Your task to perform on an android device: open app "Gboard" Image 0: 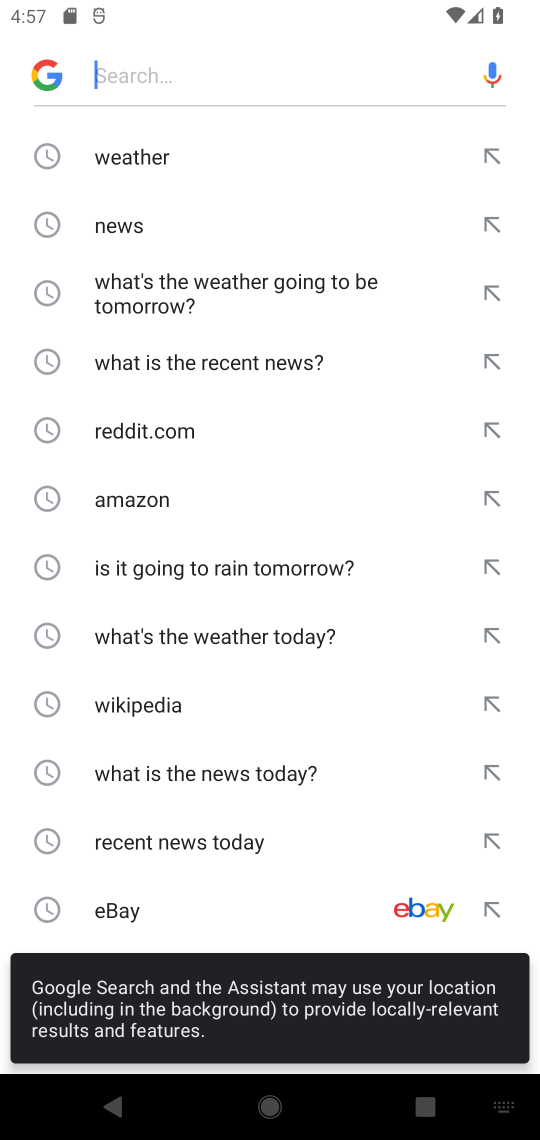
Step 0: press home button
Your task to perform on an android device: open app "Gboard" Image 1: 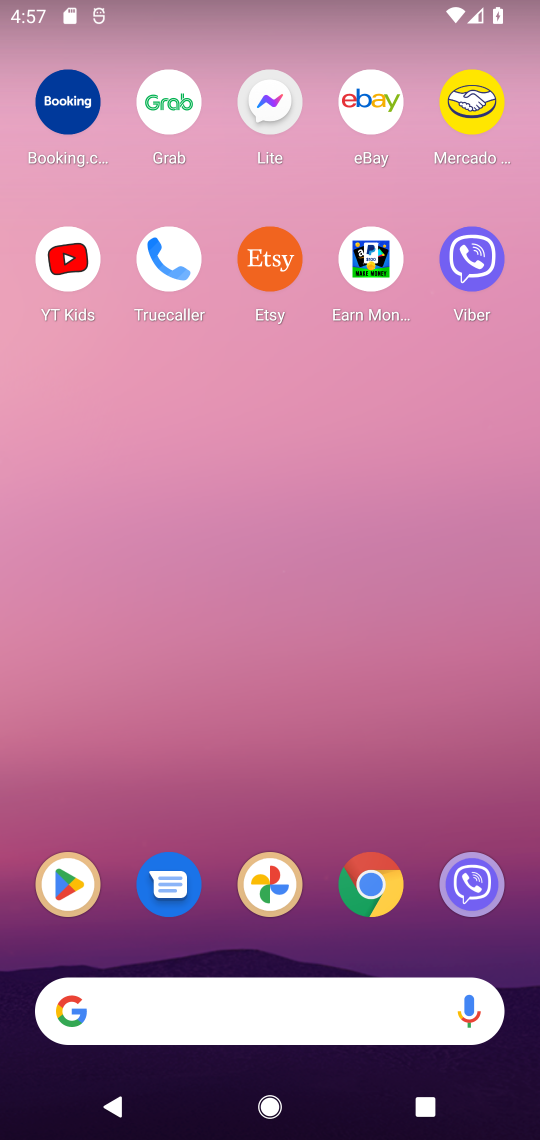
Step 1: drag from (265, 829) to (202, 126)
Your task to perform on an android device: open app "Gboard" Image 2: 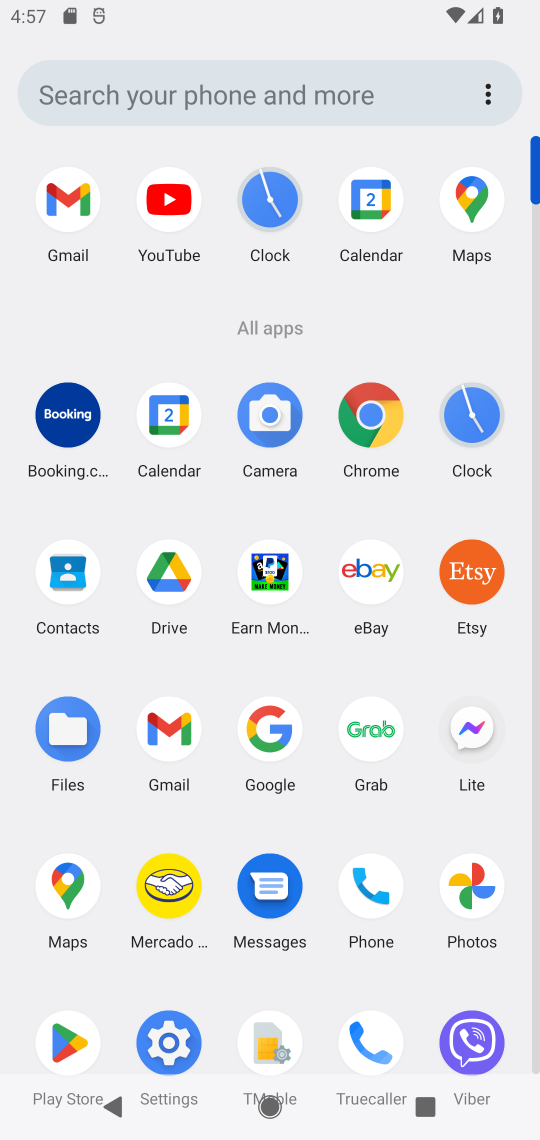
Step 2: drag from (360, 896) to (339, 195)
Your task to perform on an android device: open app "Gboard" Image 3: 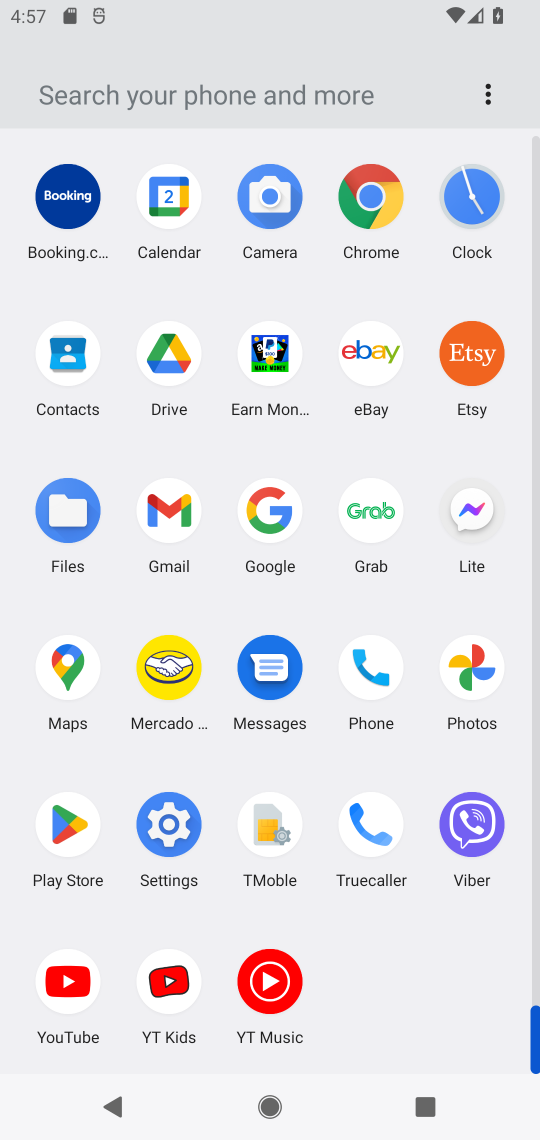
Step 3: click (65, 819)
Your task to perform on an android device: open app "Gboard" Image 4: 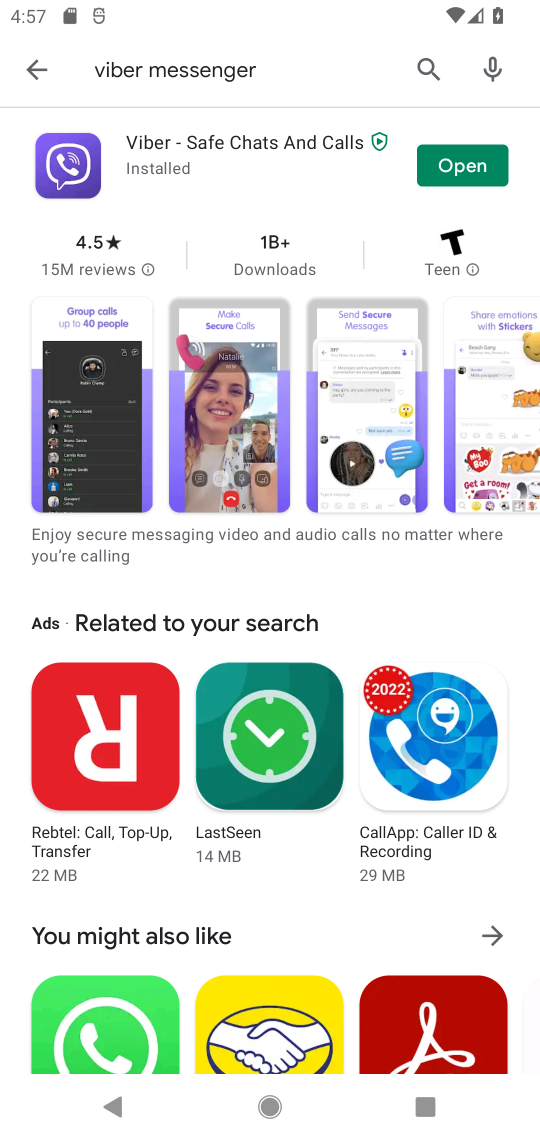
Step 4: click (32, 65)
Your task to perform on an android device: open app "Gboard" Image 5: 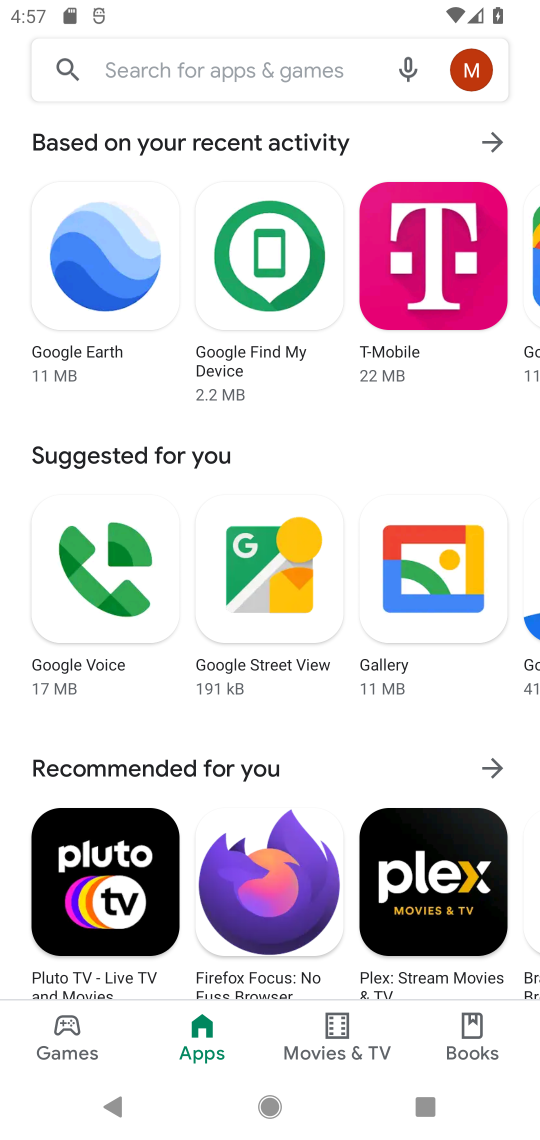
Step 5: click (173, 63)
Your task to perform on an android device: open app "Gboard" Image 6: 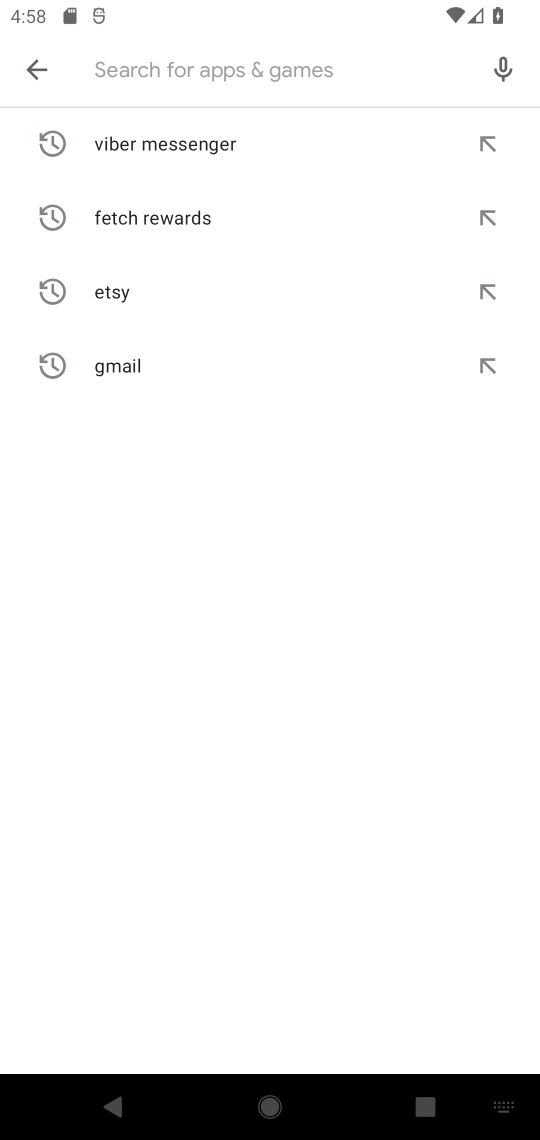
Step 6: type "Gboard"
Your task to perform on an android device: open app "Gboard" Image 7: 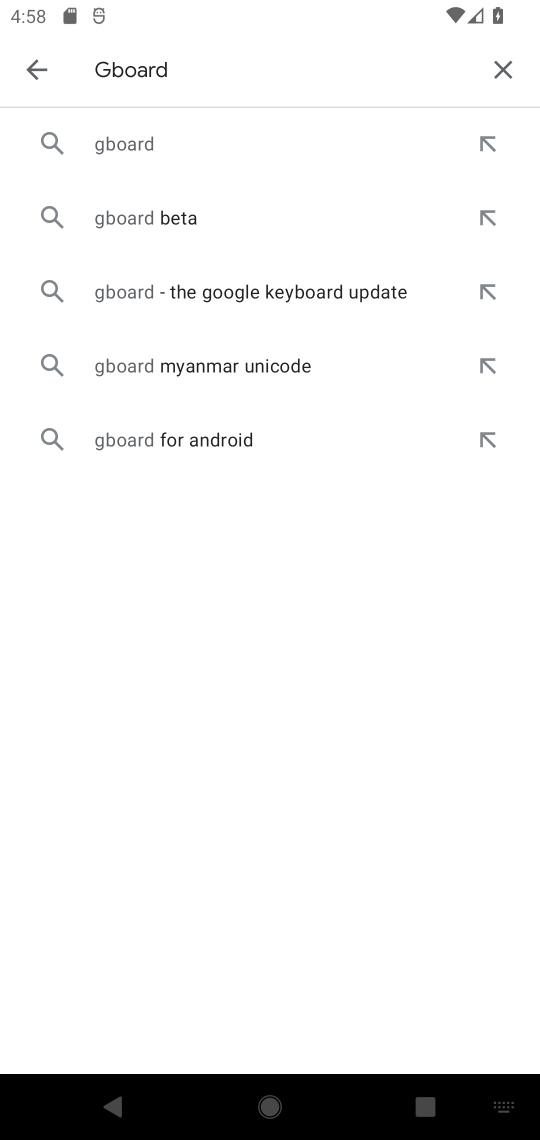
Step 7: click (129, 135)
Your task to perform on an android device: open app "Gboard" Image 8: 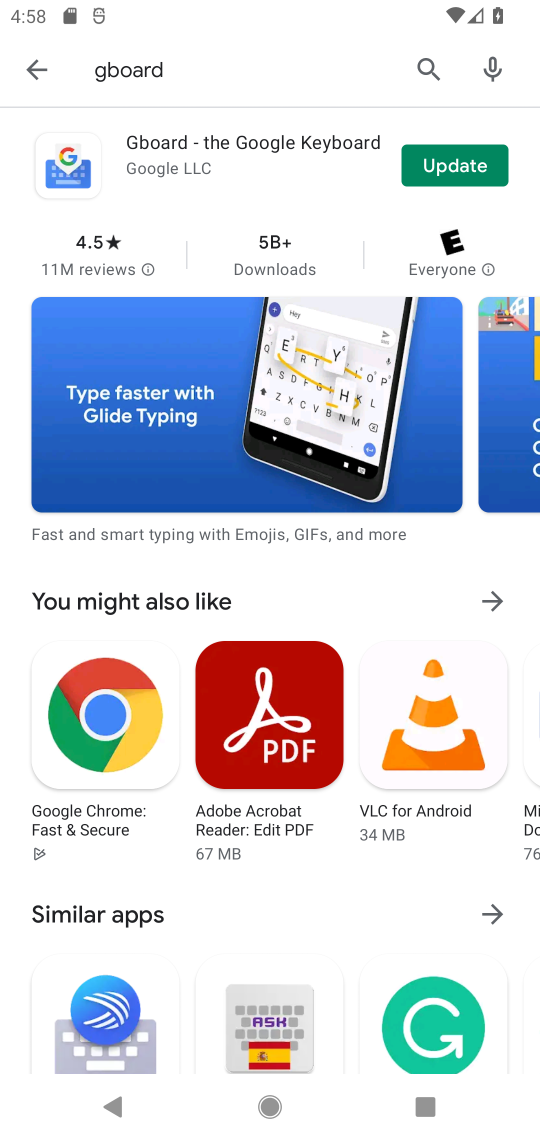
Step 8: click (210, 152)
Your task to perform on an android device: open app "Gboard" Image 9: 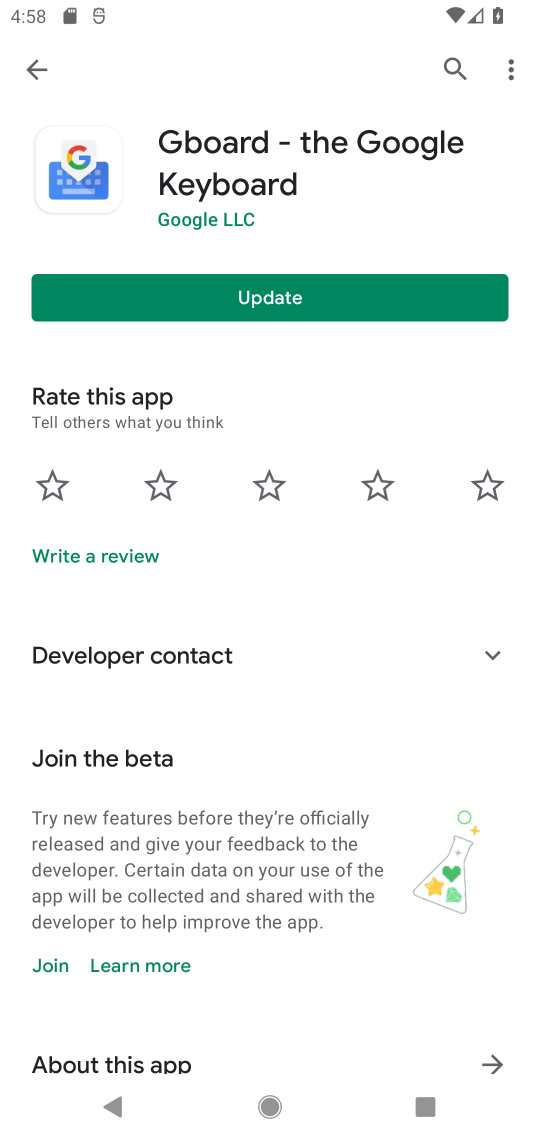
Step 9: click (261, 200)
Your task to perform on an android device: open app "Gboard" Image 10: 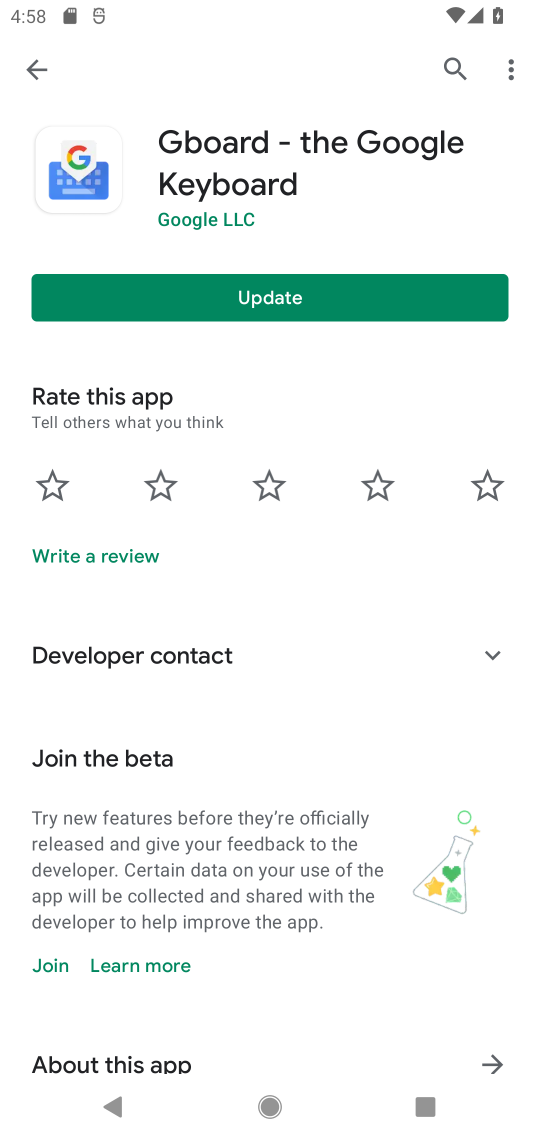
Step 10: click (161, 281)
Your task to perform on an android device: open app "Gboard" Image 11: 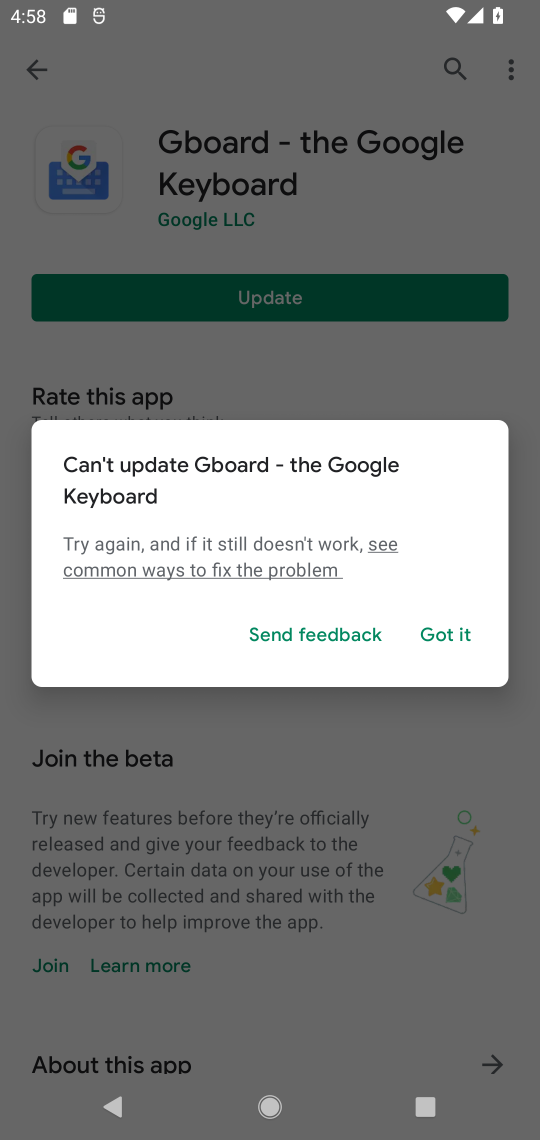
Step 11: click (449, 630)
Your task to perform on an android device: open app "Gboard" Image 12: 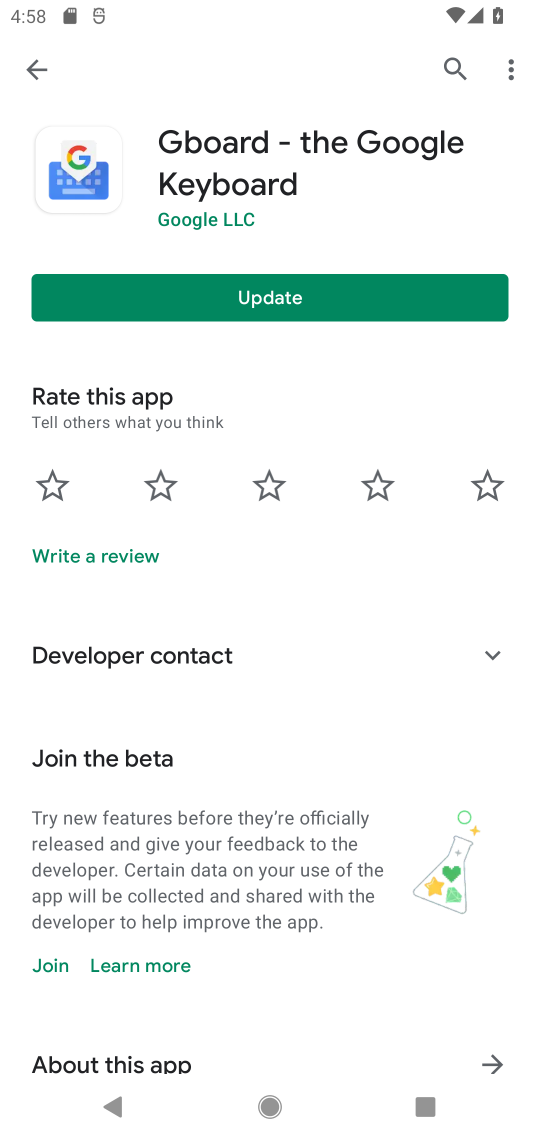
Step 12: click (269, 293)
Your task to perform on an android device: open app "Gboard" Image 13: 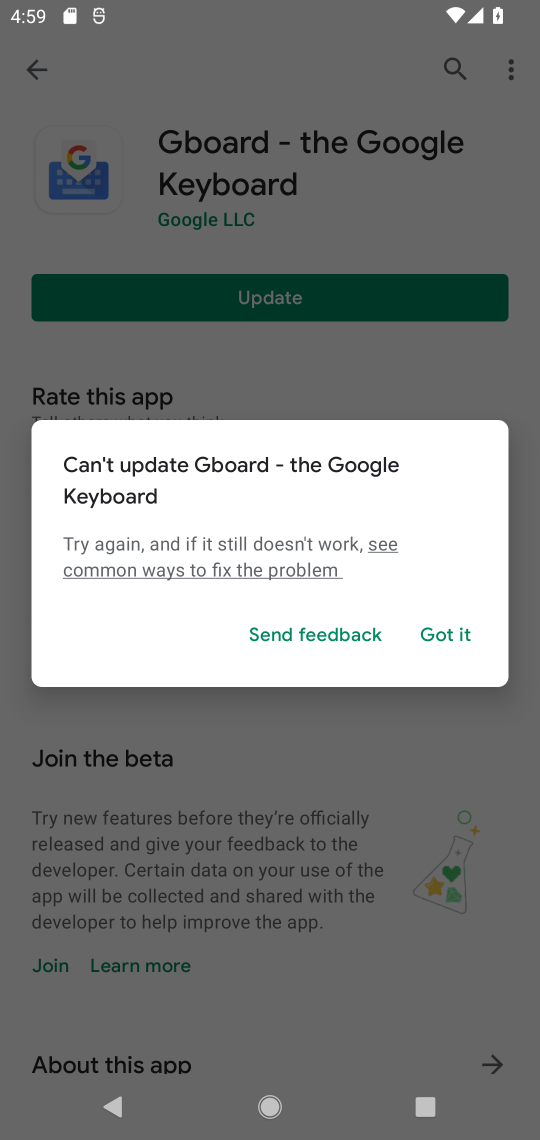
Step 13: click (455, 621)
Your task to perform on an android device: open app "Gboard" Image 14: 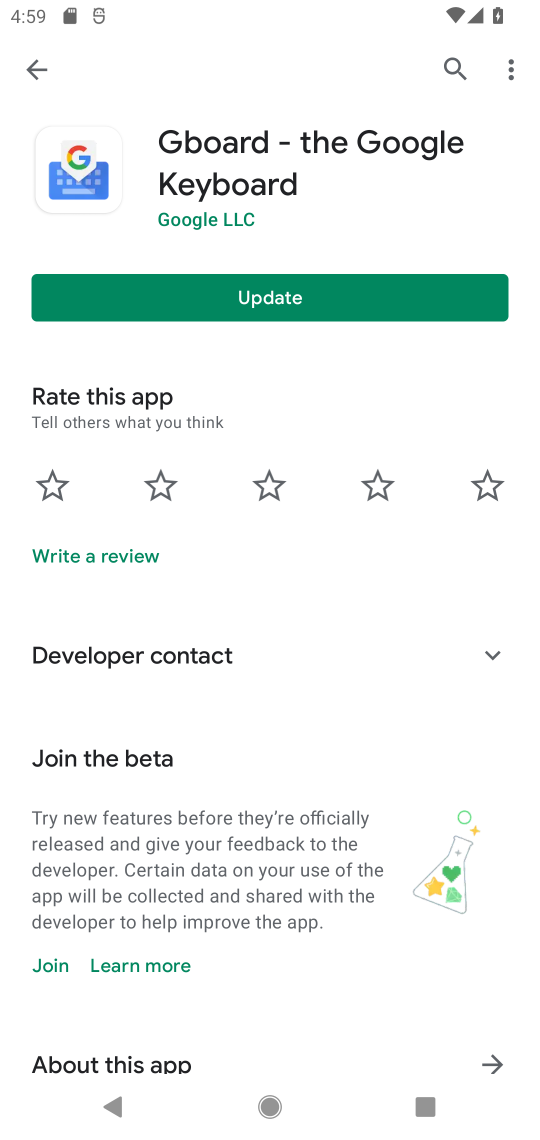
Step 14: click (32, 57)
Your task to perform on an android device: open app "Gboard" Image 15: 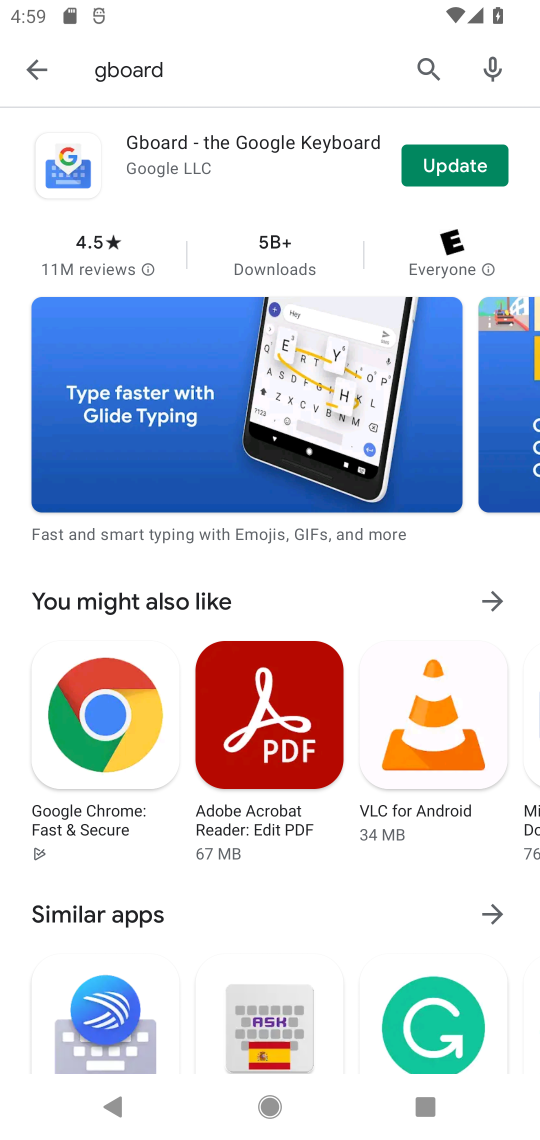
Step 15: task complete